Your task to perform on an android device: Open the Play Movies app and select the watchlist tab. Image 0: 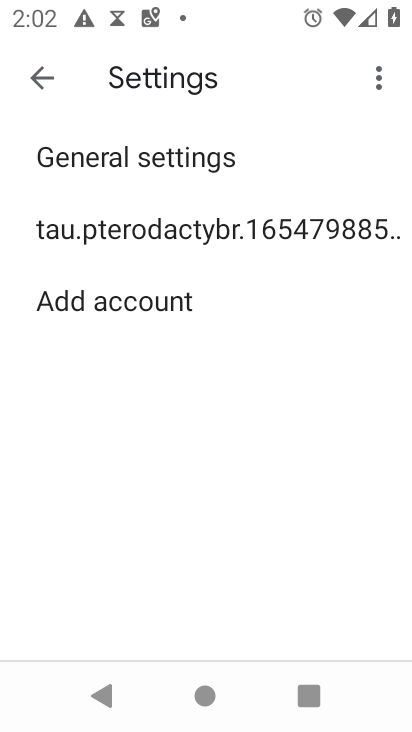
Step 0: press back button
Your task to perform on an android device: Open the Play Movies app and select the watchlist tab. Image 1: 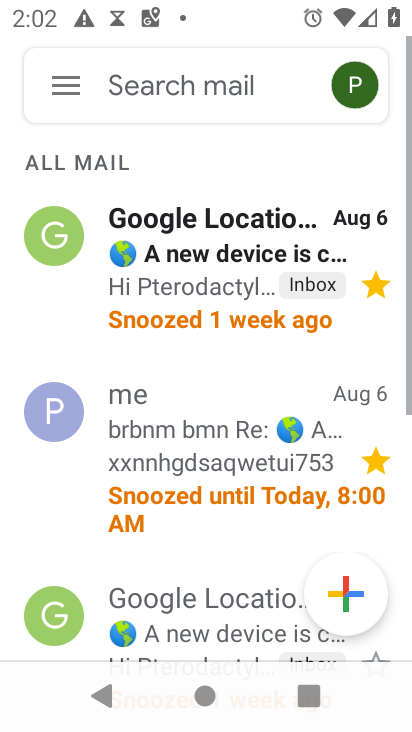
Step 1: press back button
Your task to perform on an android device: Open the Play Movies app and select the watchlist tab. Image 2: 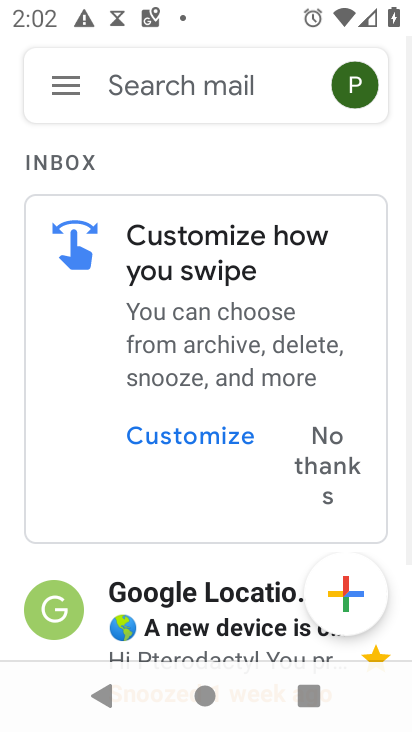
Step 2: press back button
Your task to perform on an android device: Open the Play Movies app and select the watchlist tab. Image 3: 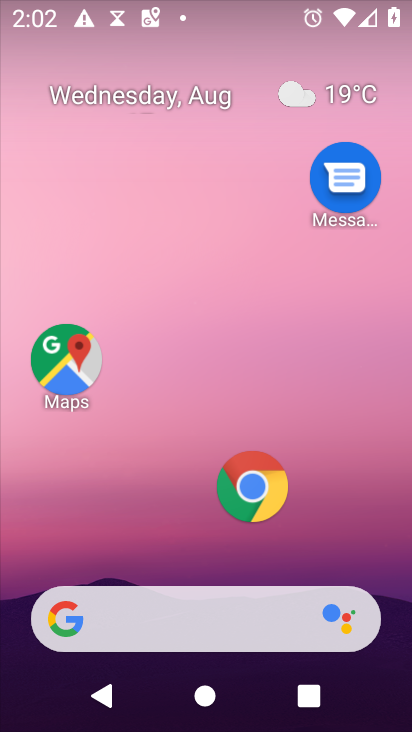
Step 3: drag from (103, 578) to (199, 39)
Your task to perform on an android device: Open the Play Movies app and select the watchlist tab. Image 4: 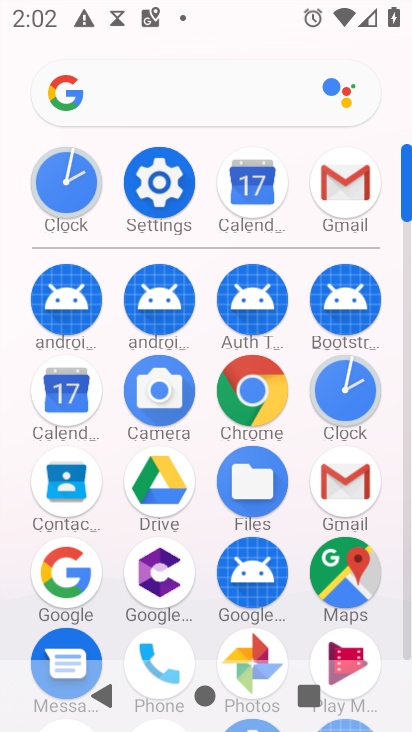
Step 4: click (350, 646)
Your task to perform on an android device: Open the Play Movies app and select the watchlist tab. Image 5: 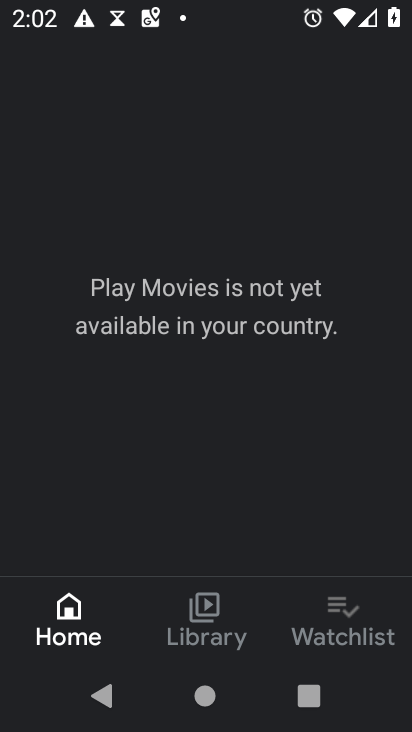
Step 5: click (336, 595)
Your task to perform on an android device: Open the Play Movies app and select the watchlist tab. Image 6: 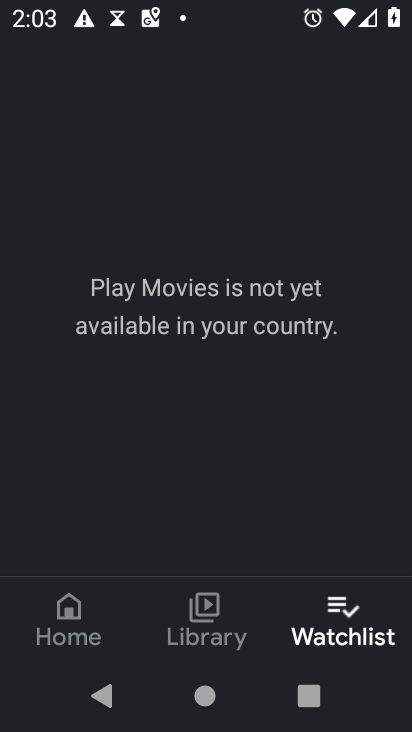
Step 6: task complete